Your task to perform on an android device: Go to internet settings Image 0: 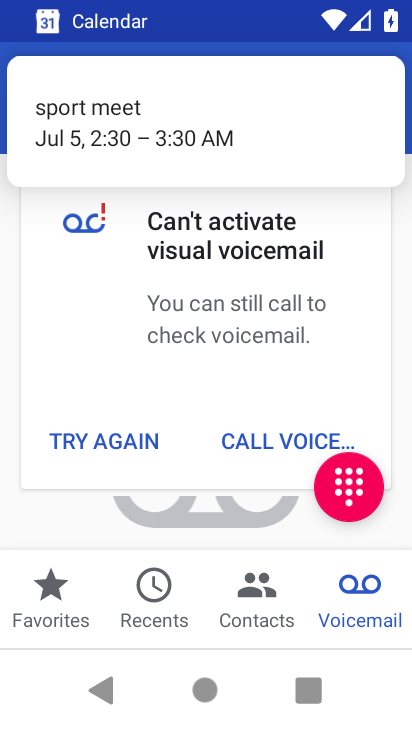
Step 0: press home button
Your task to perform on an android device: Go to internet settings Image 1: 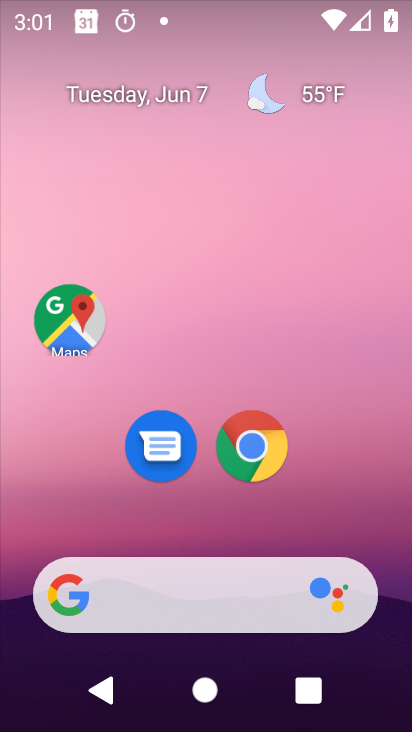
Step 1: drag from (253, 536) to (316, 5)
Your task to perform on an android device: Go to internet settings Image 2: 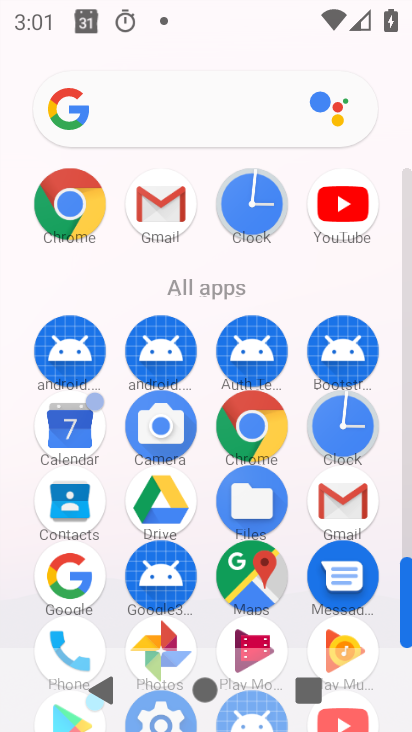
Step 2: drag from (235, 527) to (312, 195)
Your task to perform on an android device: Go to internet settings Image 3: 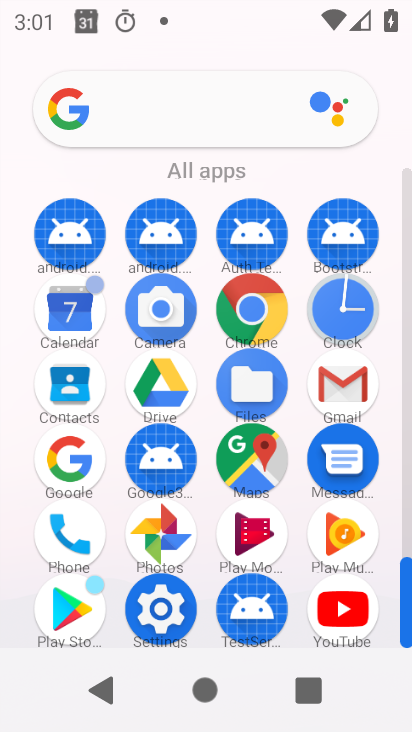
Step 3: click (155, 620)
Your task to perform on an android device: Go to internet settings Image 4: 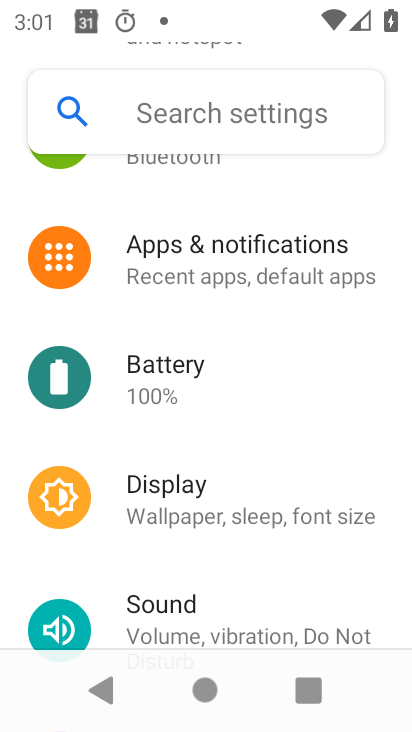
Step 4: drag from (227, 315) to (216, 535)
Your task to perform on an android device: Go to internet settings Image 5: 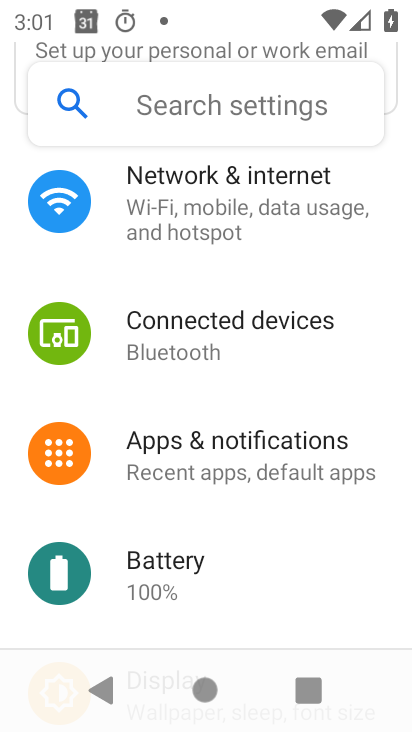
Step 5: click (233, 245)
Your task to perform on an android device: Go to internet settings Image 6: 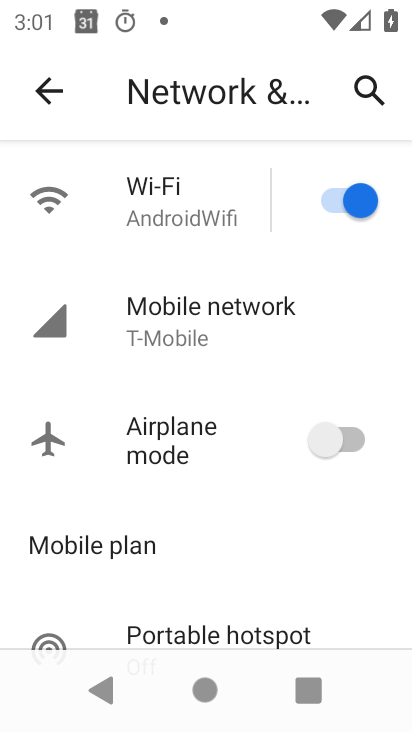
Step 6: task complete